Your task to perform on an android device: see sites visited before in the chrome app Image 0: 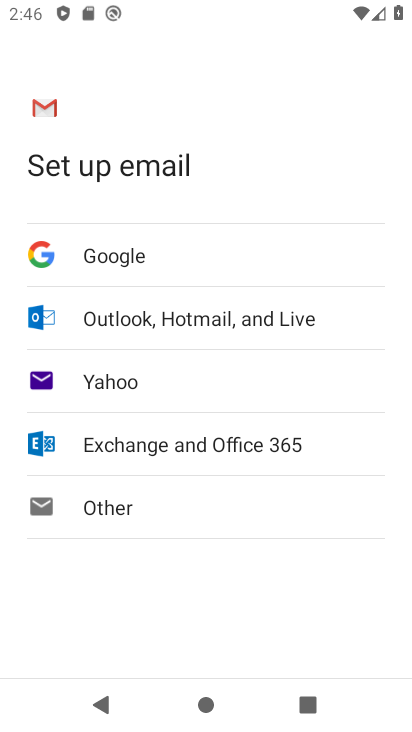
Step 0: press home button
Your task to perform on an android device: see sites visited before in the chrome app Image 1: 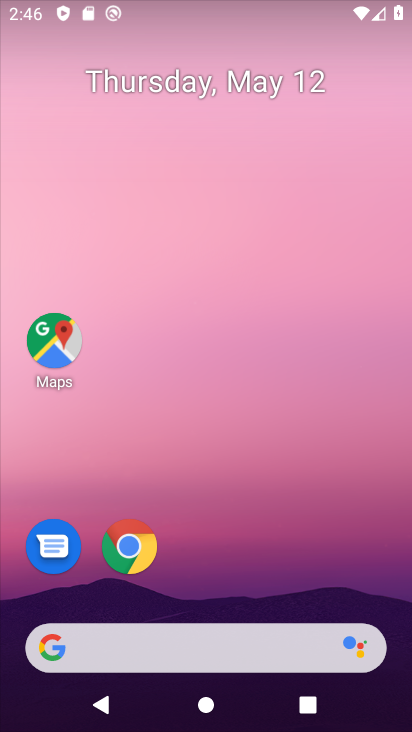
Step 1: drag from (241, 584) to (276, 235)
Your task to perform on an android device: see sites visited before in the chrome app Image 2: 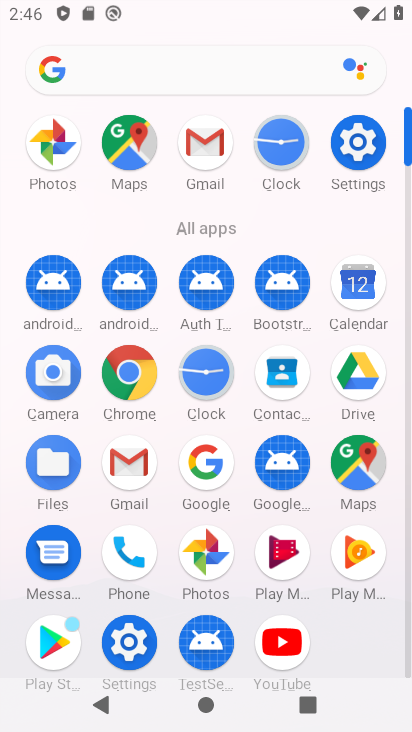
Step 2: click (117, 373)
Your task to perform on an android device: see sites visited before in the chrome app Image 3: 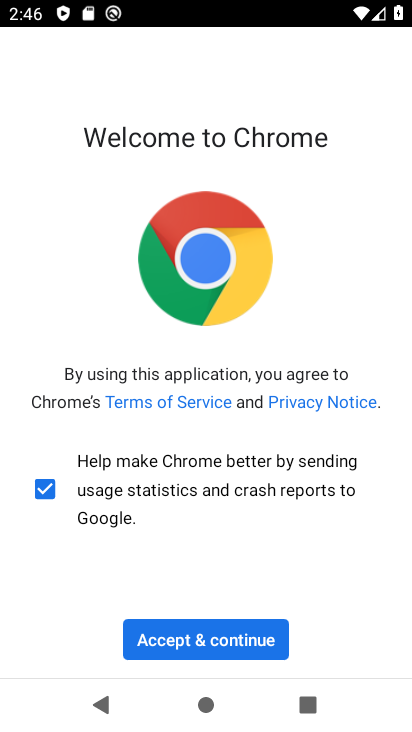
Step 3: click (165, 621)
Your task to perform on an android device: see sites visited before in the chrome app Image 4: 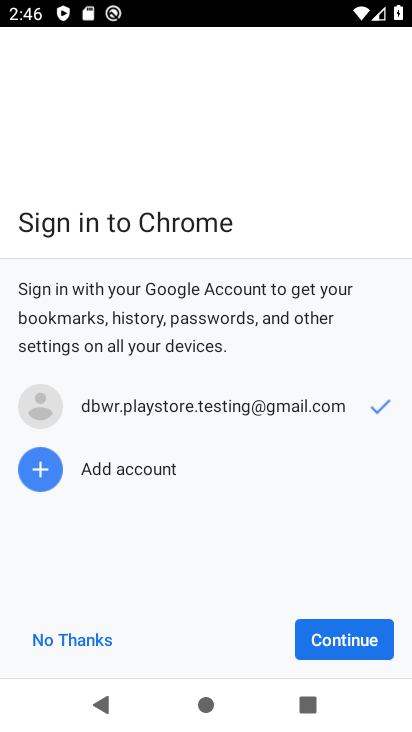
Step 4: click (371, 637)
Your task to perform on an android device: see sites visited before in the chrome app Image 5: 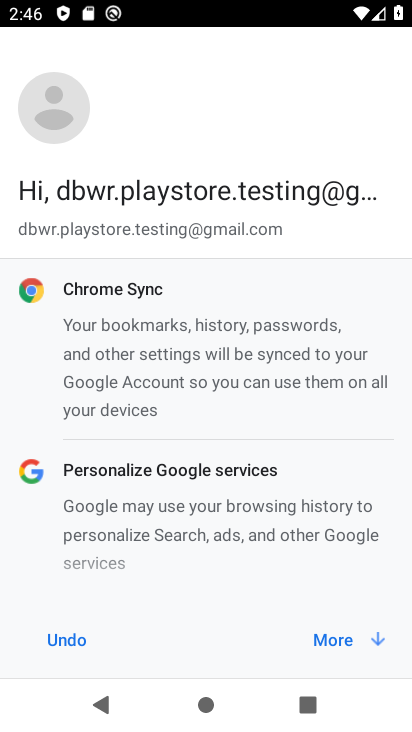
Step 5: click (318, 643)
Your task to perform on an android device: see sites visited before in the chrome app Image 6: 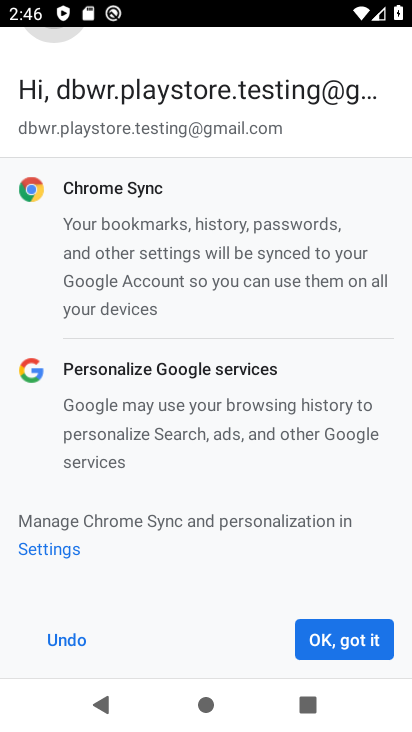
Step 6: click (311, 649)
Your task to perform on an android device: see sites visited before in the chrome app Image 7: 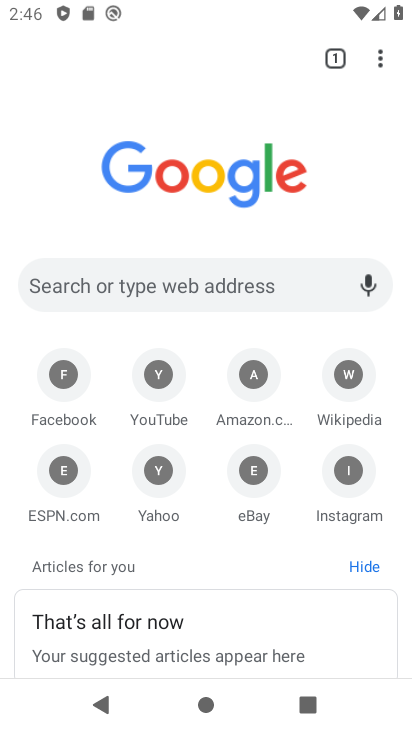
Step 7: click (366, 63)
Your task to perform on an android device: see sites visited before in the chrome app Image 8: 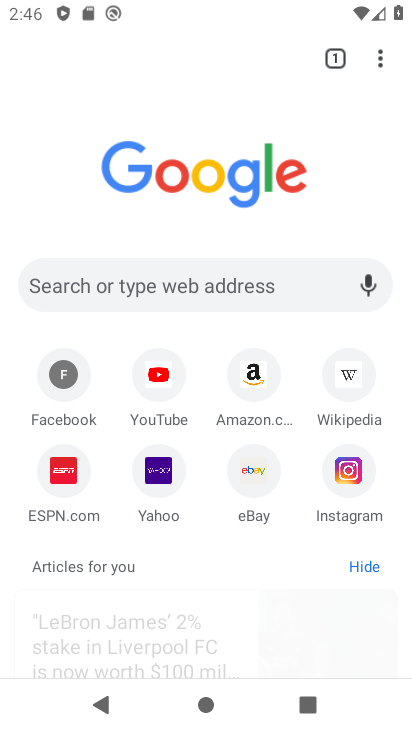
Step 8: click (366, 51)
Your task to perform on an android device: see sites visited before in the chrome app Image 9: 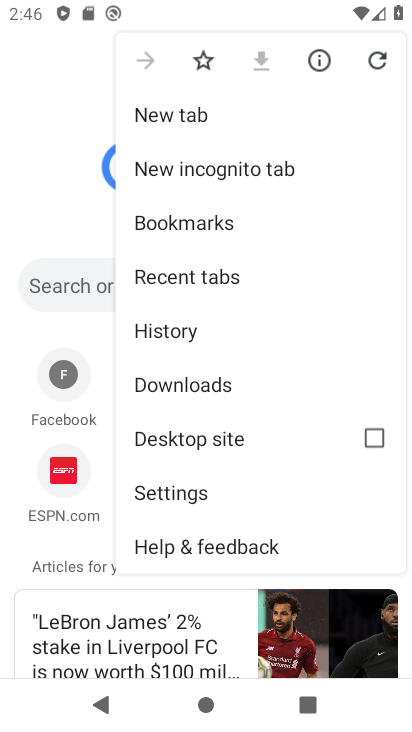
Step 9: click (176, 328)
Your task to perform on an android device: see sites visited before in the chrome app Image 10: 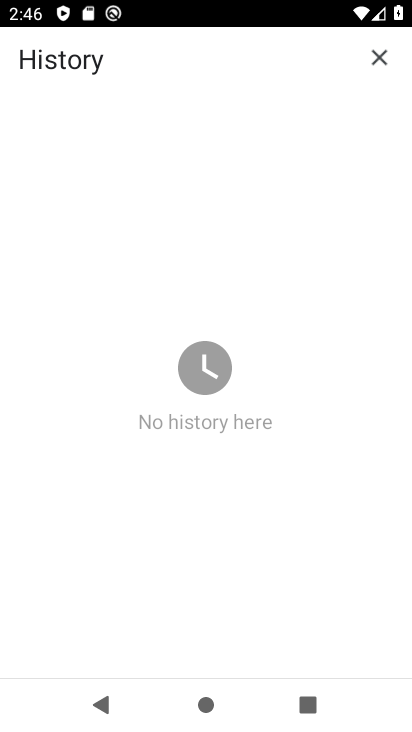
Step 10: task complete